Your task to perform on an android device: Show me popular games on the Play Store Image 0: 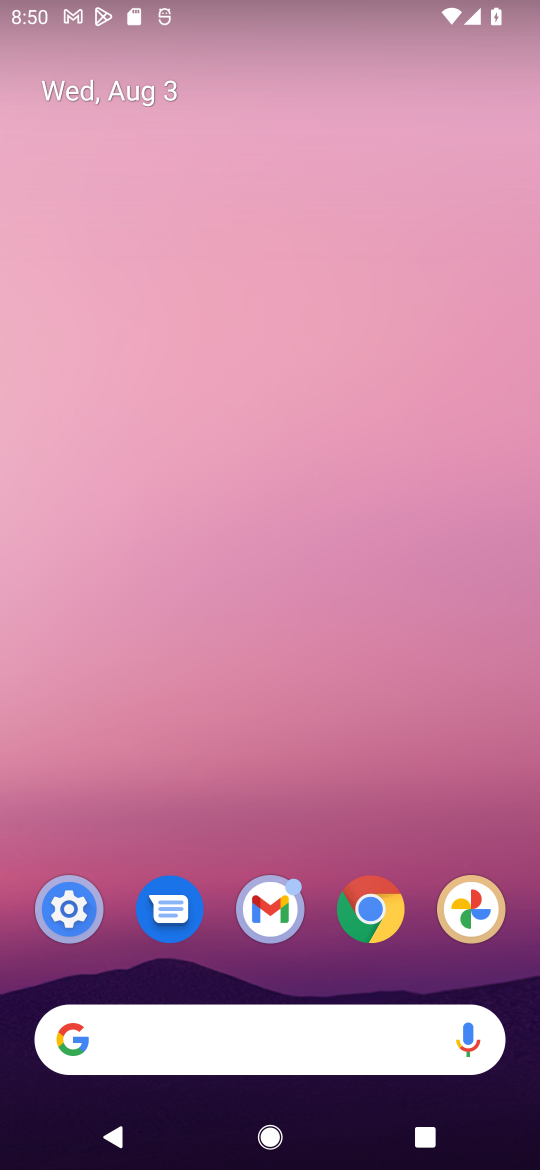
Step 0: press home button
Your task to perform on an android device: Show me popular games on the Play Store Image 1: 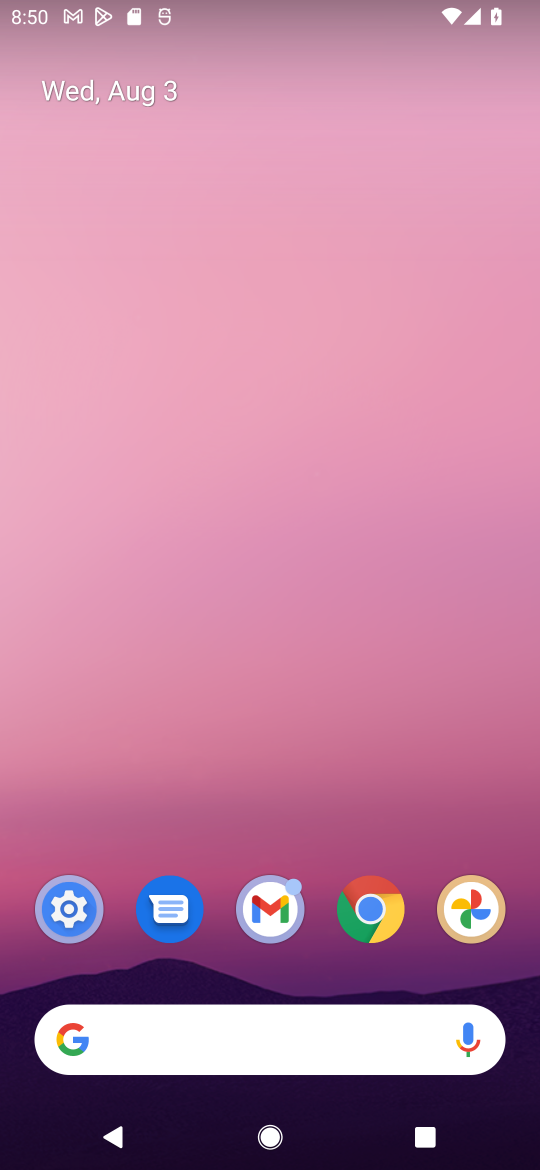
Step 1: drag from (397, 789) to (382, 323)
Your task to perform on an android device: Show me popular games on the Play Store Image 2: 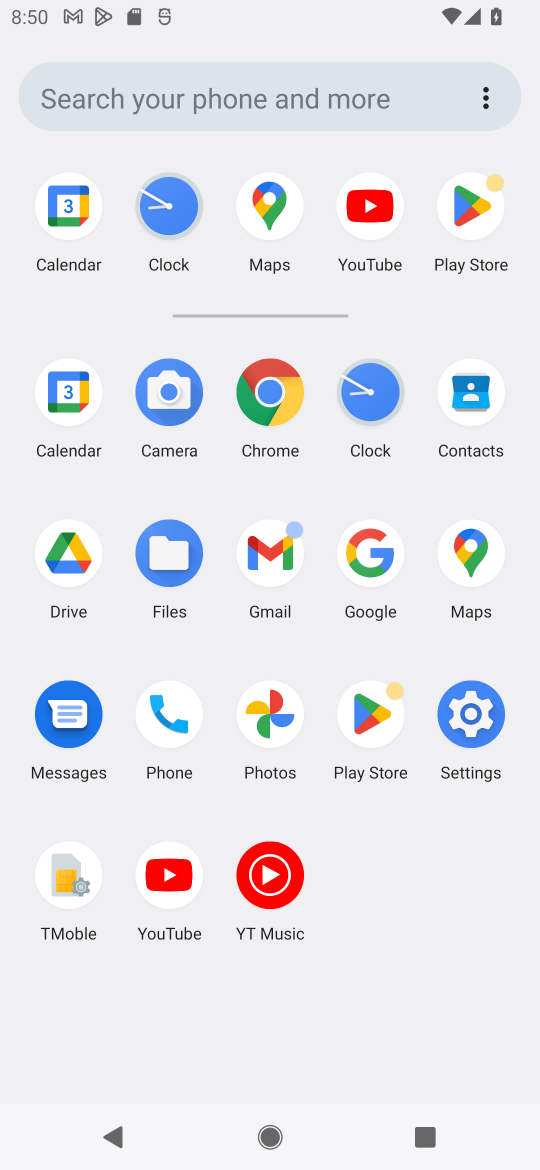
Step 2: click (371, 713)
Your task to perform on an android device: Show me popular games on the Play Store Image 3: 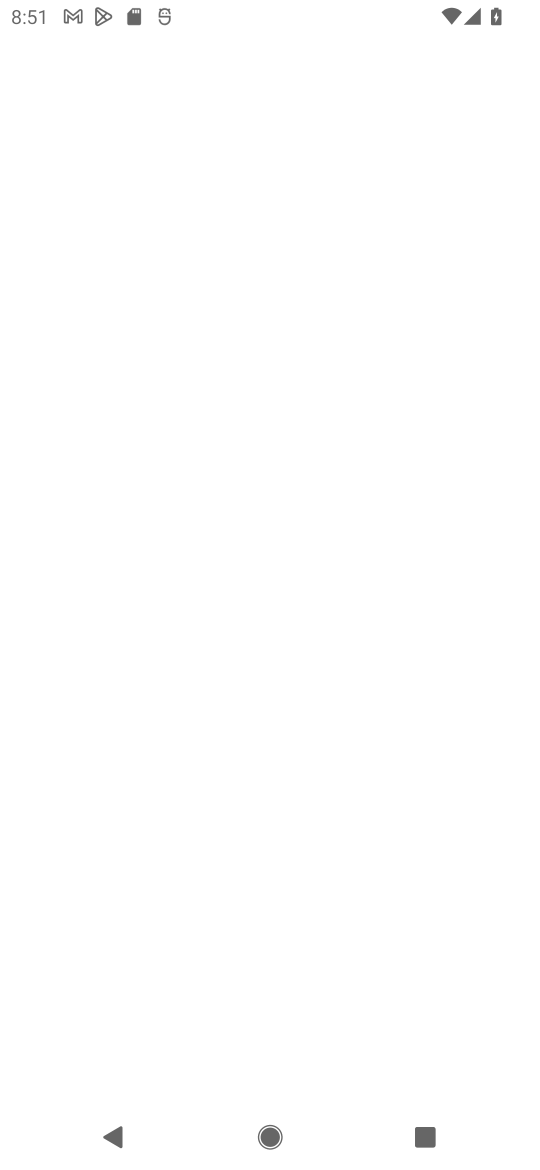
Step 3: task complete